Your task to perform on an android device: toggle airplane mode Image 0: 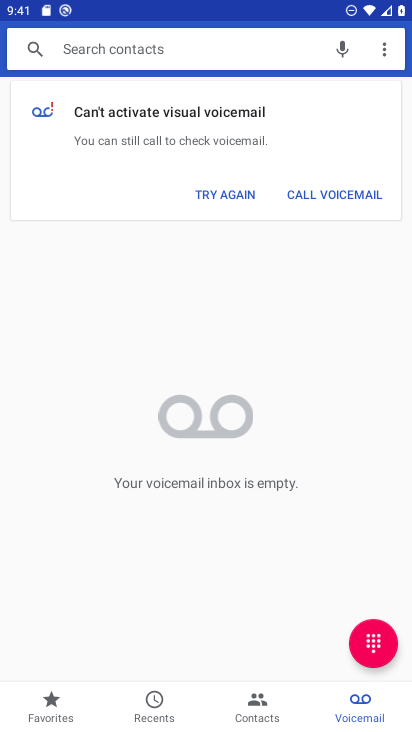
Step 0: press home button
Your task to perform on an android device: toggle airplane mode Image 1: 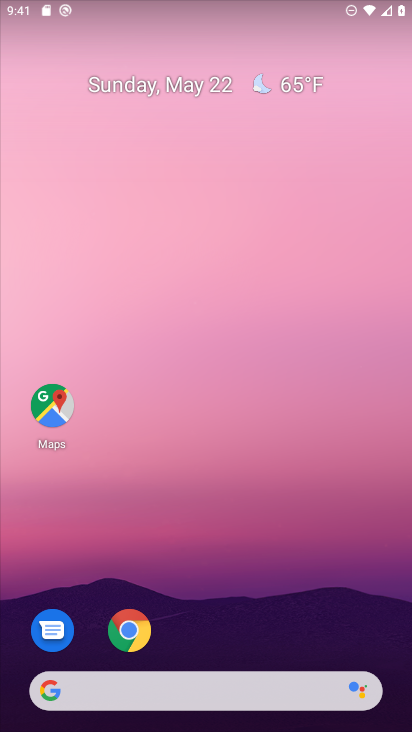
Step 1: drag from (186, 693) to (283, 135)
Your task to perform on an android device: toggle airplane mode Image 2: 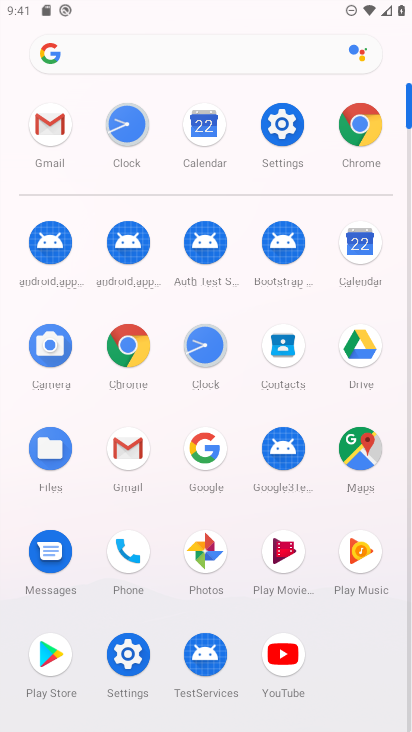
Step 2: click (280, 144)
Your task to perform on an android device: toggle airplane mode Image 3: 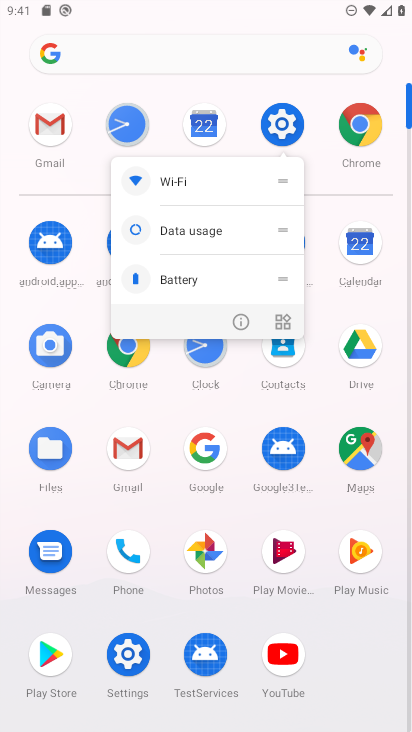
Step 3: click (288, 119)
Your task to perform on an android device: toggle airplane mode Image 4: 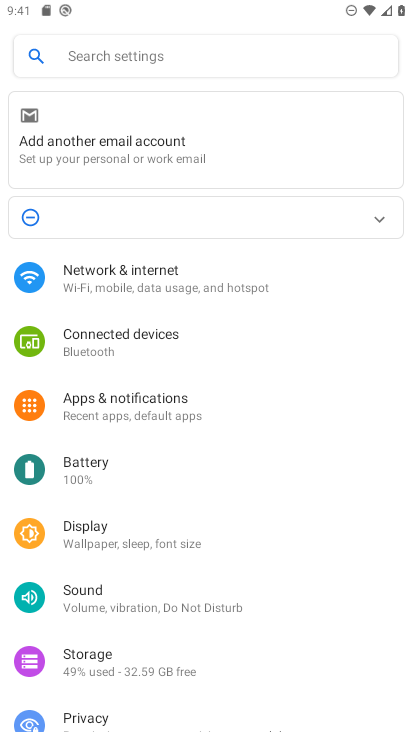
Step 4: click (149, 285)
Your task to perform on an android device: toggle airplane mode Image 5: 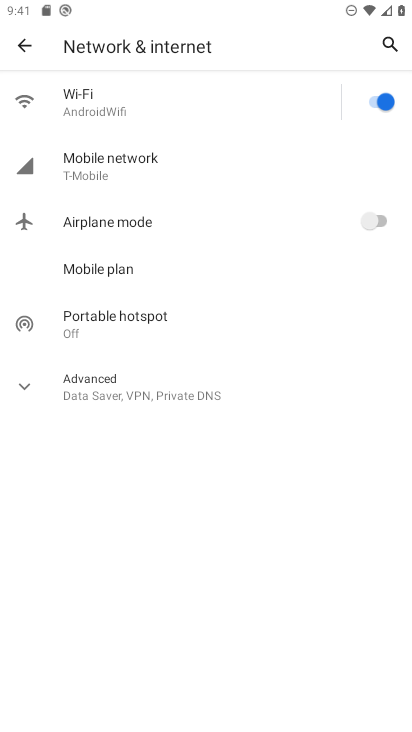
Step 5: click (379, 220)
Your task to perform on an android device: toggle airplane mode Image 6: 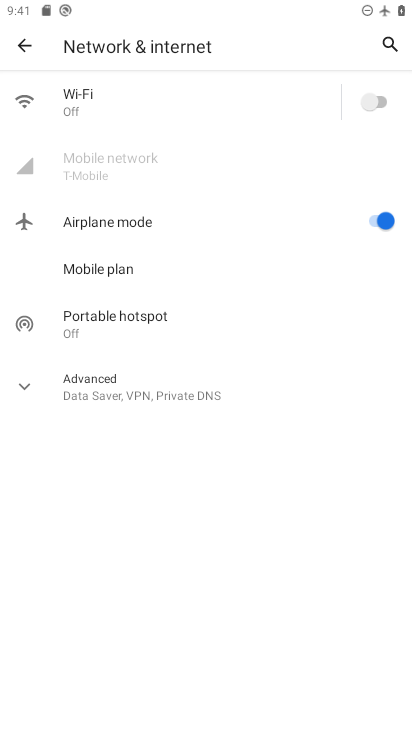
Step 6: task complete